Your task to perform on an android device: change the clock display to analog Image 0: 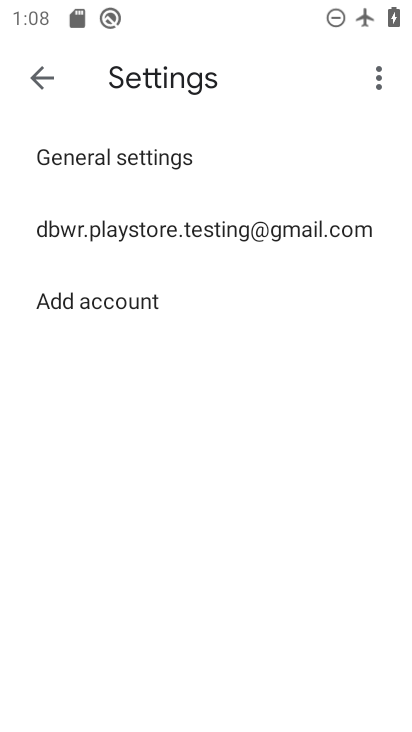
Step 0: press home button
Your task to perform on an android device: change the clock display to analog Image 1: 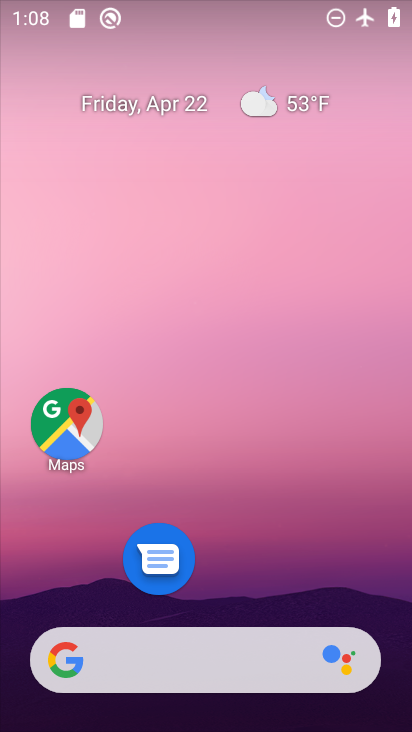
Step 1: drag from (227, 723) to (228, 177)
Your task to perform on an android device: change the clock display to analog Image 2: 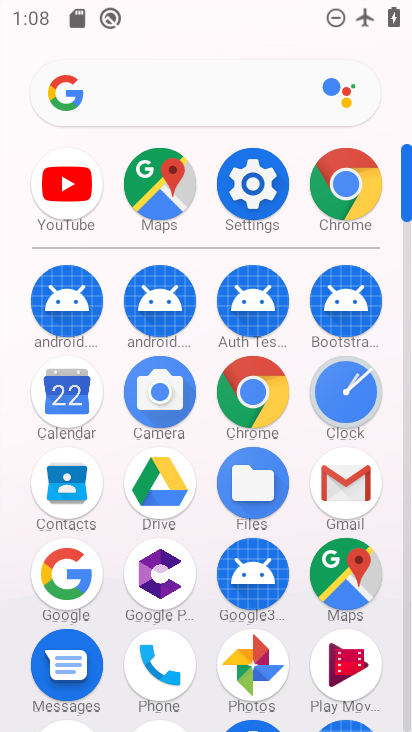
Step 2: click (346, 391)
Your task to perform on an android device: change the clock display to analog Image 3: 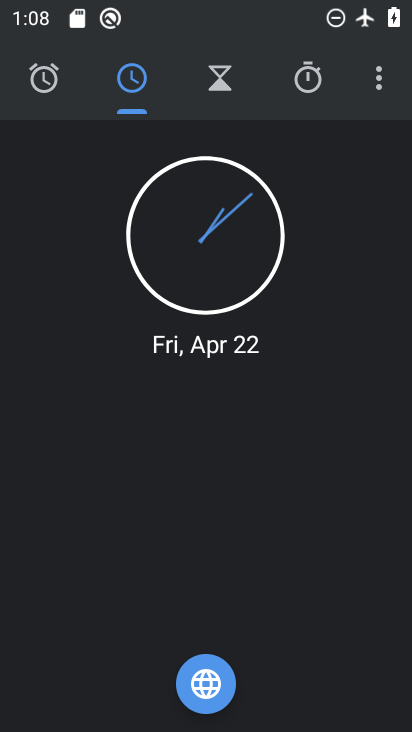
Step 3: click (378, 73)
Your task to perform on an android device: change the clock display to analog Image 4: 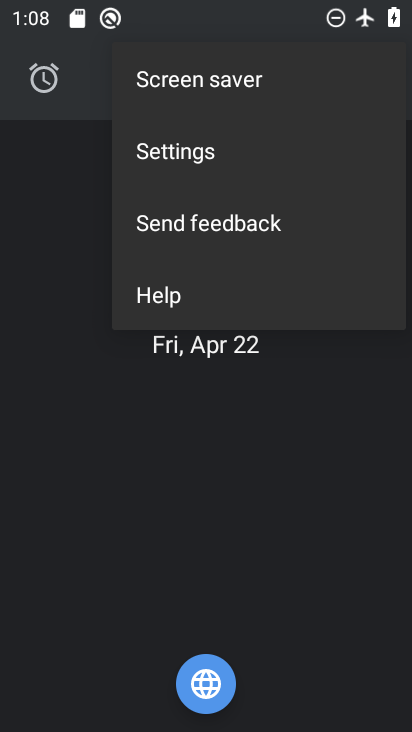
Step 4: click (184, 155)
Your task to perform on an android device: change the clock display to analog Image 5: 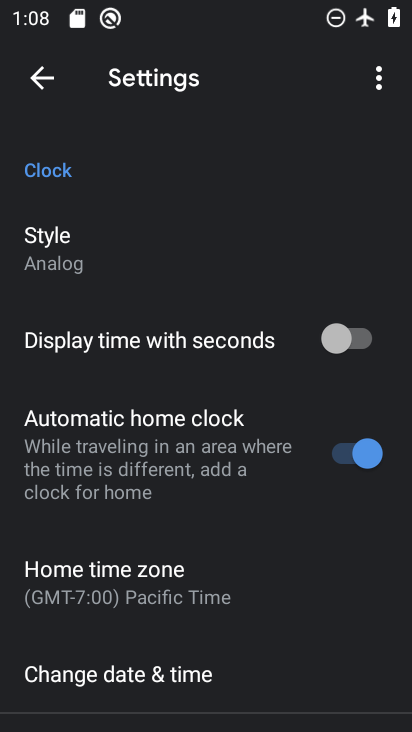
Step 5: task complete